Your task to perform on an android device: What's on my calendar tomorrow? Image 0: 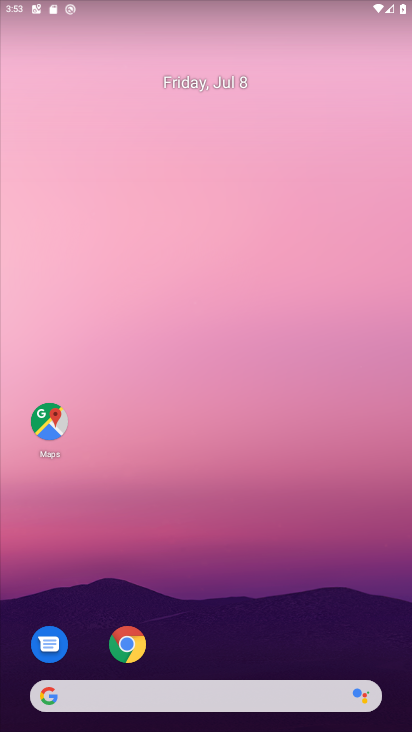
Step 0: drag from (390, 652) to (317, 120)
Your task to perform on an android device: What's on my calendar tomorrow? Image 1: 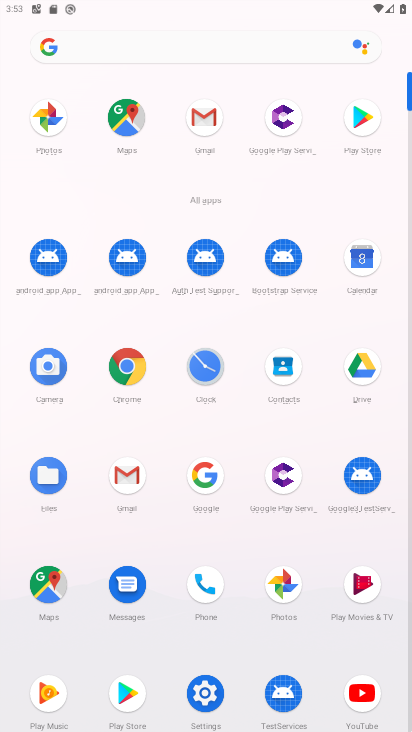
Step 1: click (363, 261)
Your task to perform on an android device: What's on my calendar tomorrow? Image 2: 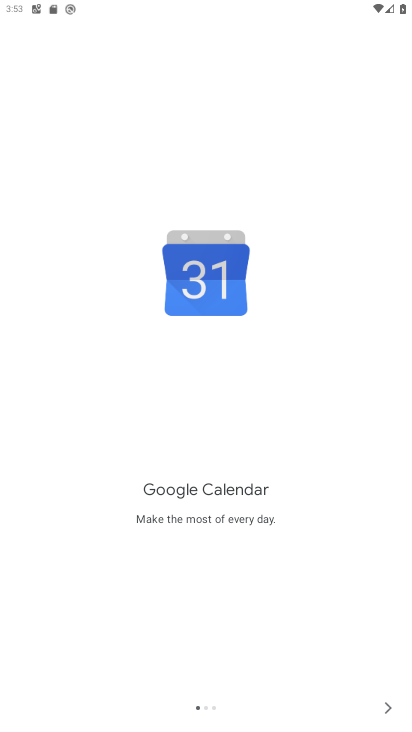
Step 2: click (386, 705)
Your task to perform on an android device: What's on my calendar tomorrow? Image 3: 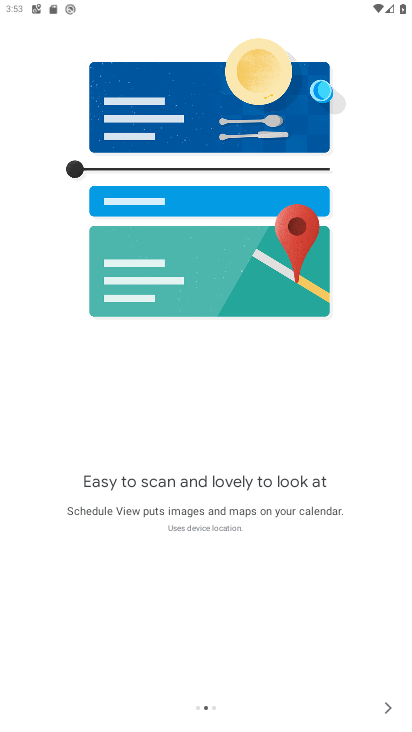
Step 3: click (386, 705)
Your task to perform on an android device: What's on my calendar tomorrow? Image 4: 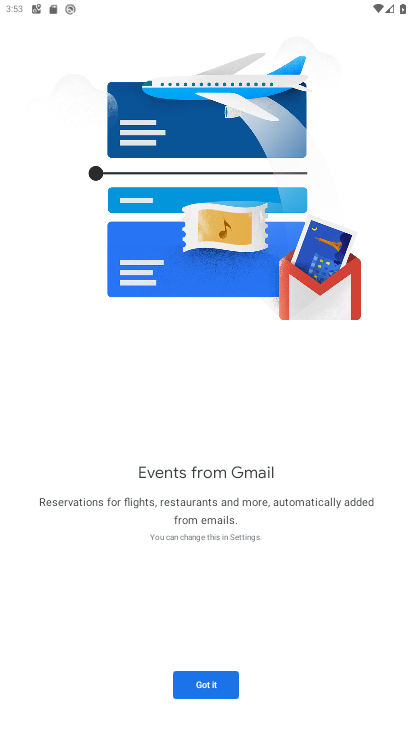
Step 4: click (202, 682)
Your task to perform on an android device: What's on my calendar tomorrow? Image 5: 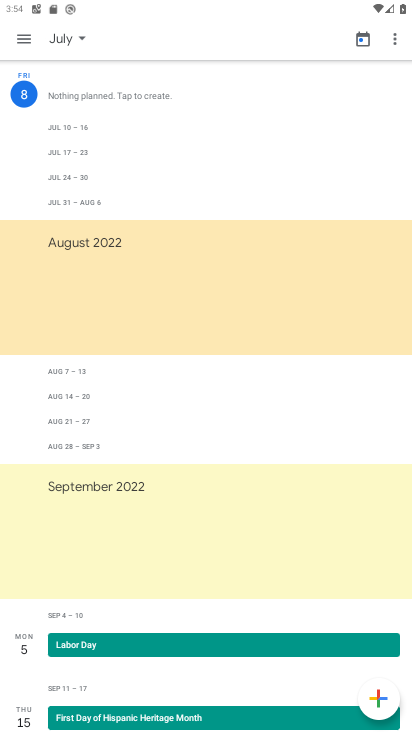
Step 5: click (21, 38)
Your task to perform on an android device: What's on my calendar tomorrow? Image 6: 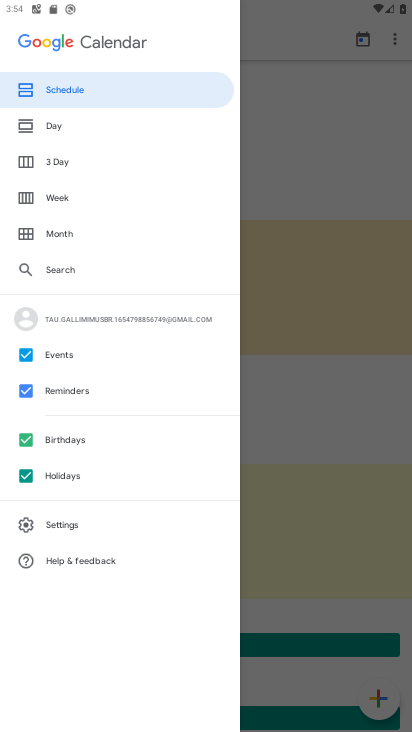
Step 6: click (51, 128)
Your task to perform on an android device: What's on my calendar tomorrow? Image 7: 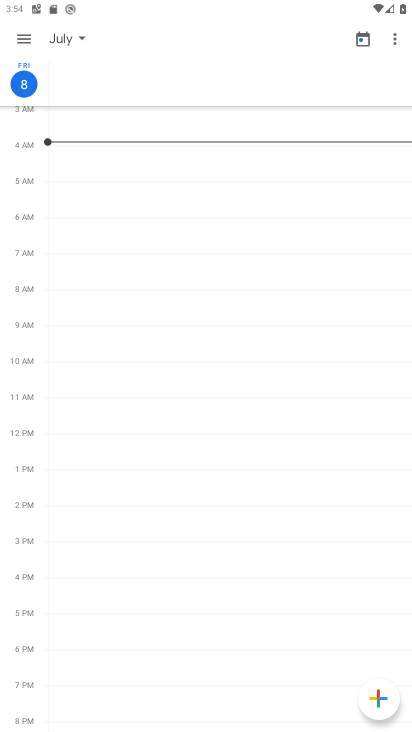
Step 7: click (78, 38)
Your task to perform on an android device: What's on my calendar tomorrow? Image 8: 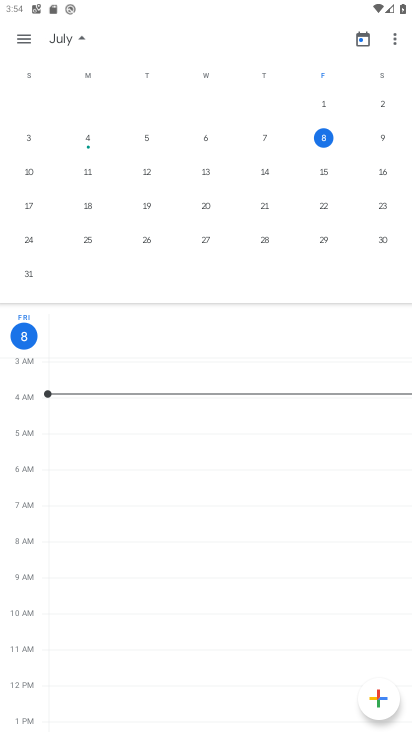
Step 8: click (382, 136)
Your task to perform on an android device: What's on my calendar tomorrow? Image 9: 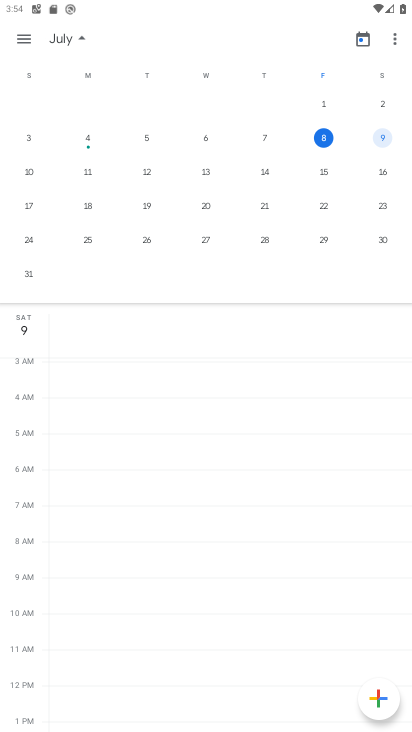
Step 9: task complete